Your task to perform on an android device: star an email in the gmail app Image 0: 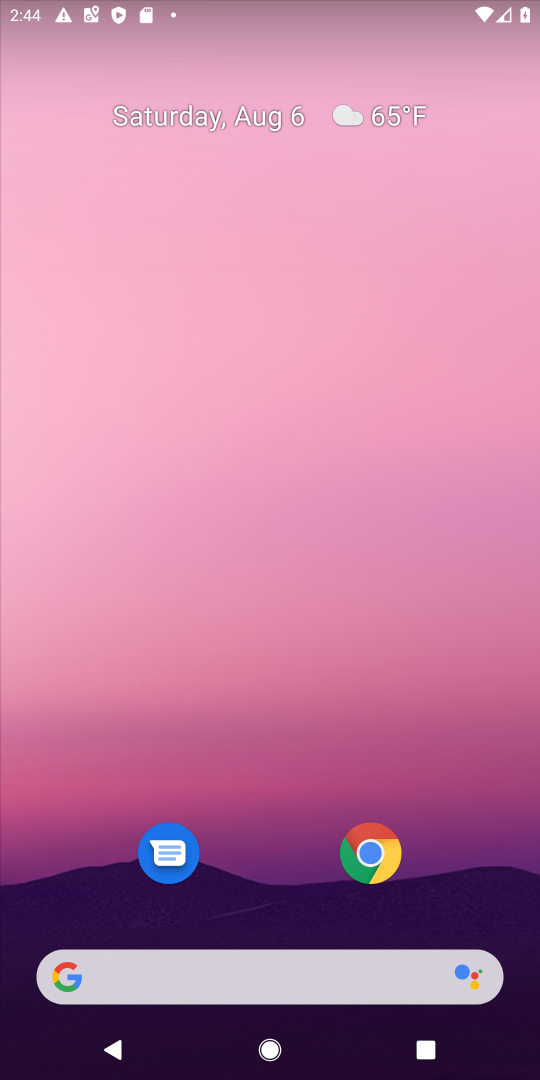
Step 0: press back button
Your task to perform on an android device: star an email in the gmail app Image 1: 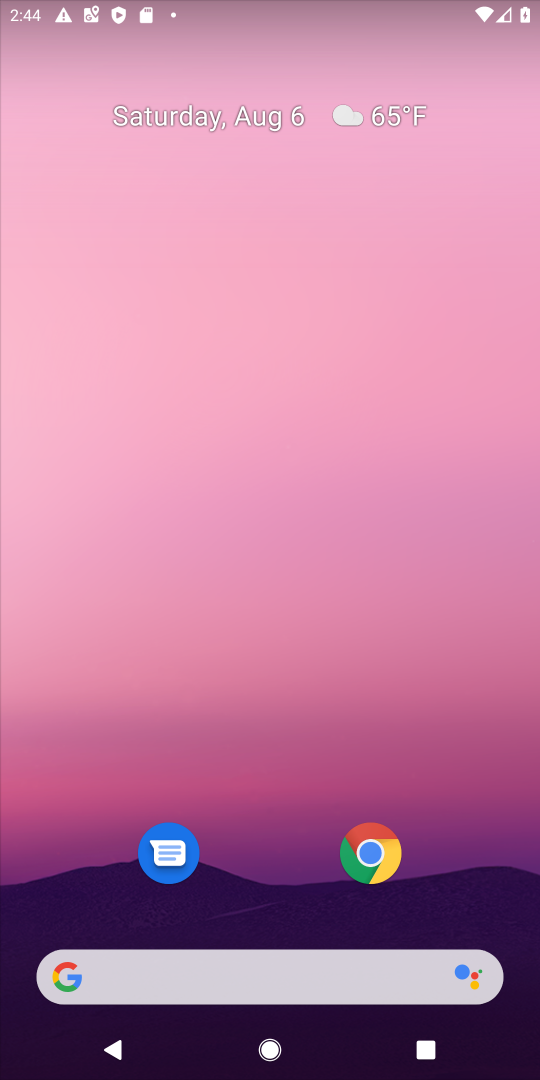
Step 1: drag from (327, 926) to (466, 89)
Your task to perform on an android device: star an email in the gmail app Image 2: 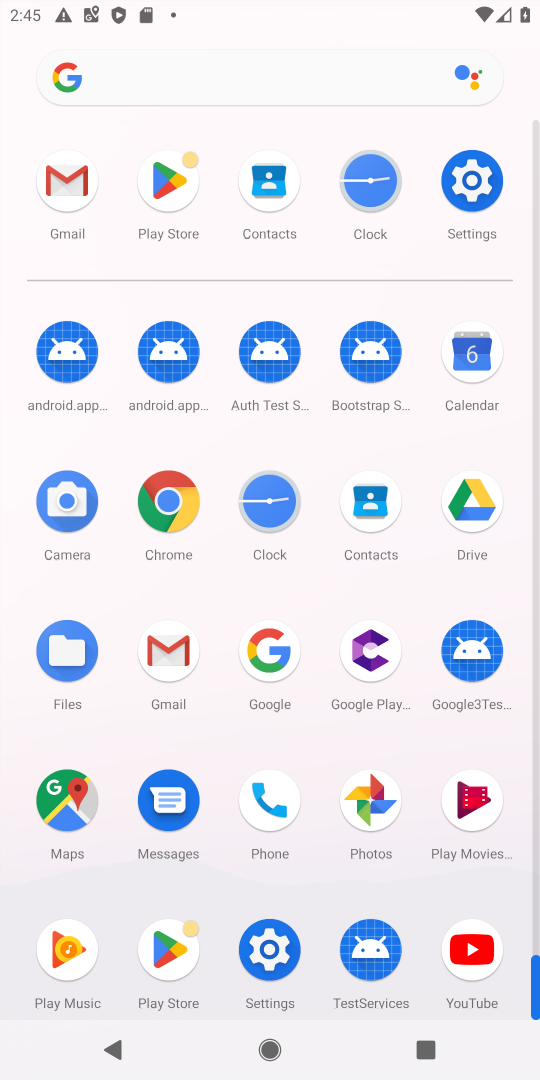
Step 2: click (52, 175)
Your task to perform on an android device: star an email in the gmail app Image 3: 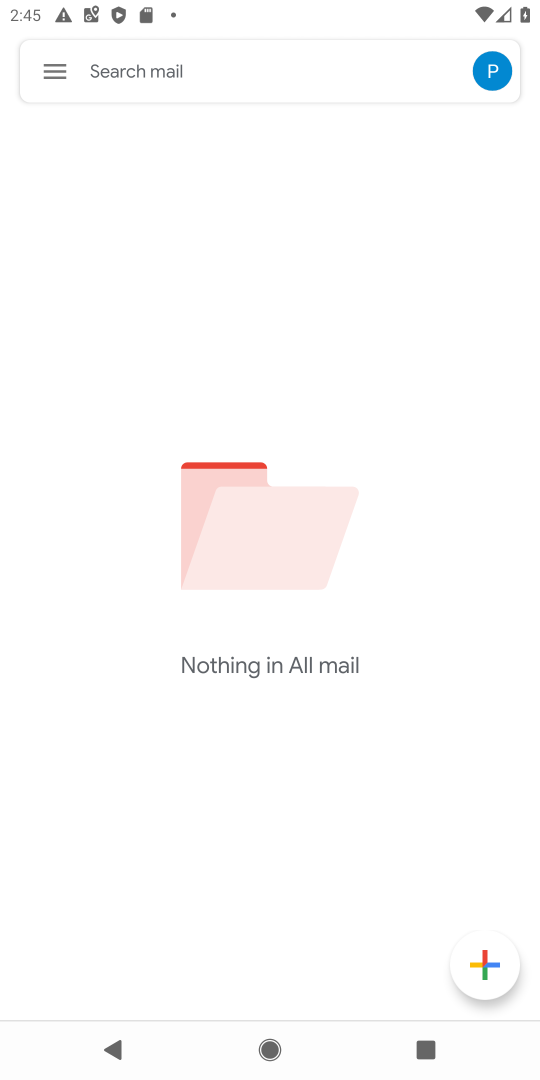
Step 3: task complete